Your task to perform on an android device: toggle pop-ups in chrome Image 0: 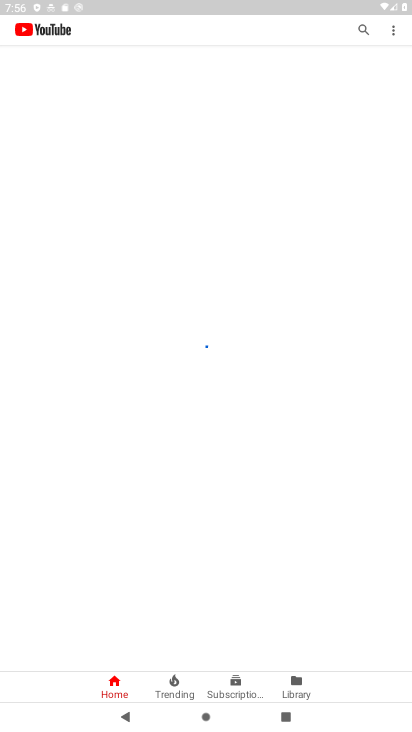
Step 0: drag from (262, 654) to (218, 104)
Your task to perform on an android device: toggle pop-ups in chrome Image 1: 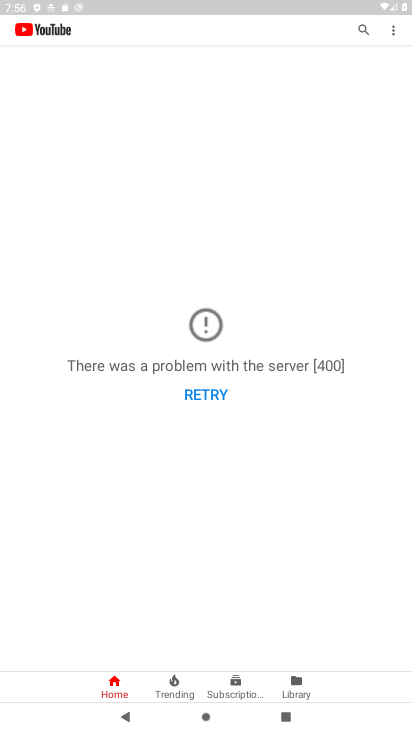
Step 1: press back button
Your task to perform on an android device: toggle pop-ups in chrome Image 2: 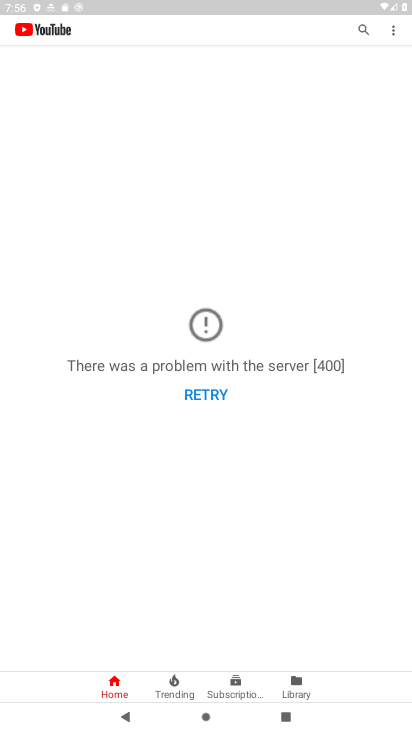
Step 2: press back button
Your task to perform on an android device: toggle pop-ups in chrome Image 3: 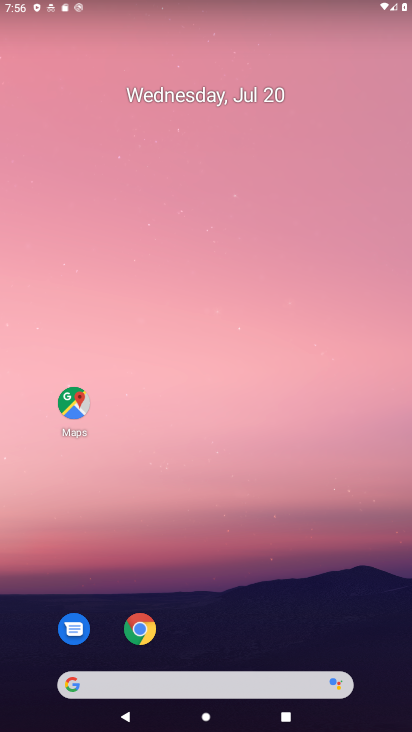
Step 3: press home button
Your task to perform on an android device: toggle pop-ups in chrome Image 4: 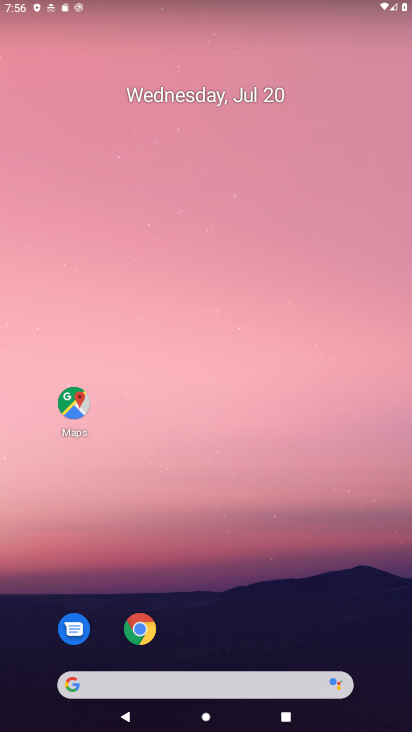
Step 4: drag from (208, 515) to (170, 151)
Your task to perform on an android device: toggle pop-ups in chrome Image 5: 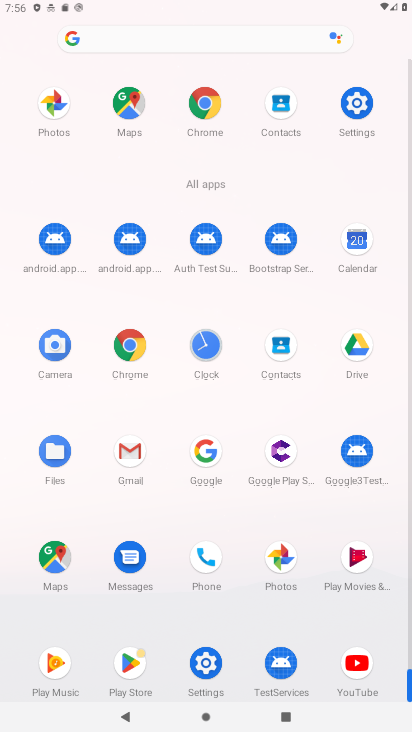
Step 5: click (200, 114)
Your task to perform on an android device: toggle pop-ups in chrome Image 6: 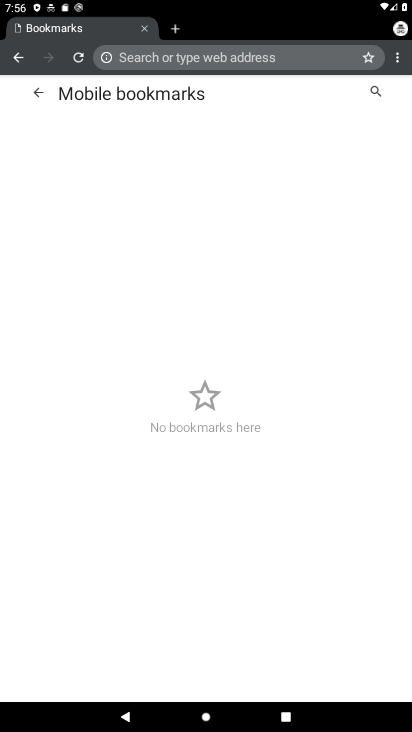
Step 6: drag from (393, 55) to (295, 233)
Your task to perform on an android device: toggle pop-ups in chrome Image 7: 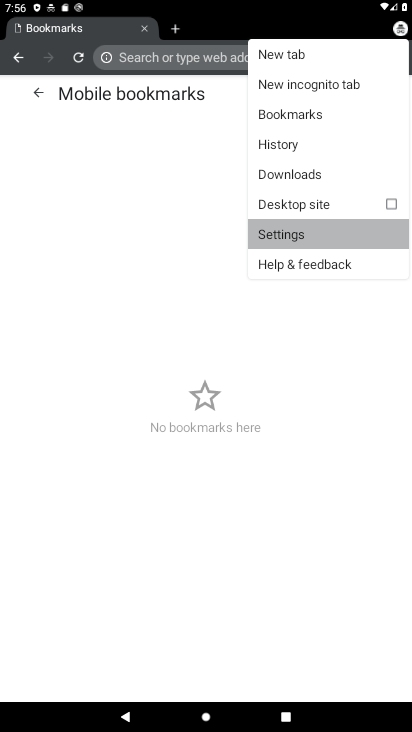
Step 7: click (294, 232)
Your task to perform on an android device: toggle pop-ups in chrome Image 8: 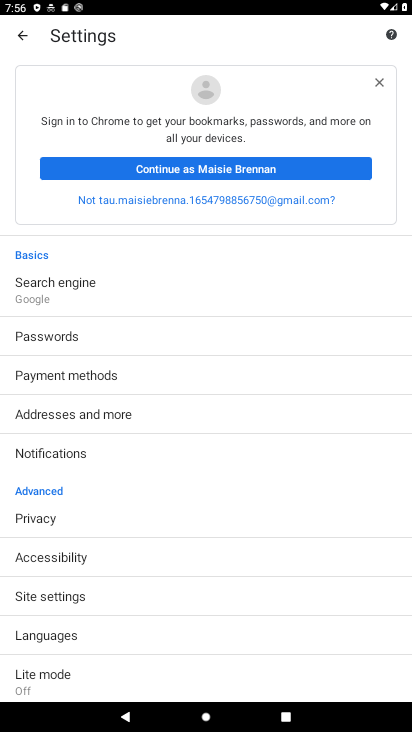
Step 8: drag from (80, 483) to (10, 37)
Your task to perform on an android device: toggle pop-ups in chrome Image 9: 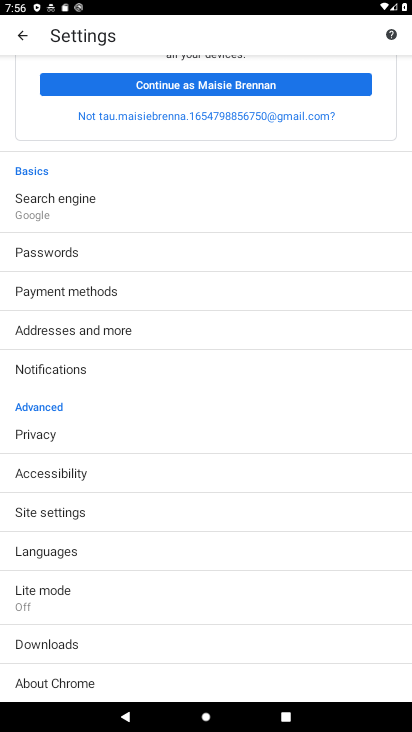
Step 9: click (43, 501)
Your task to perform on an android device: toggle pop-ups in chrome Image 10: 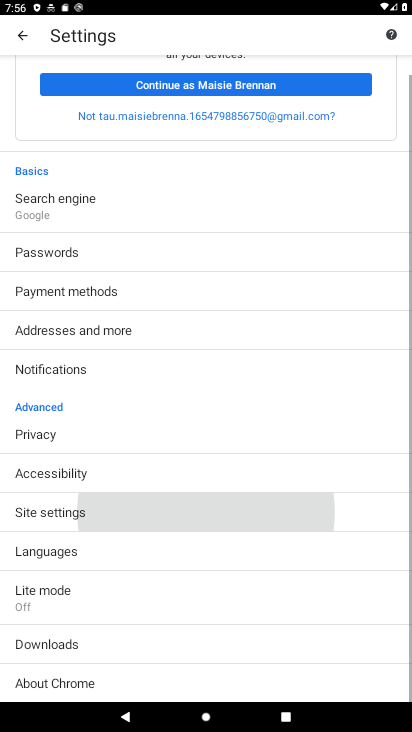
Step 10: click (43, 500)
Your task to perform on an android device: toggle pop-ups in chrome Image 11: 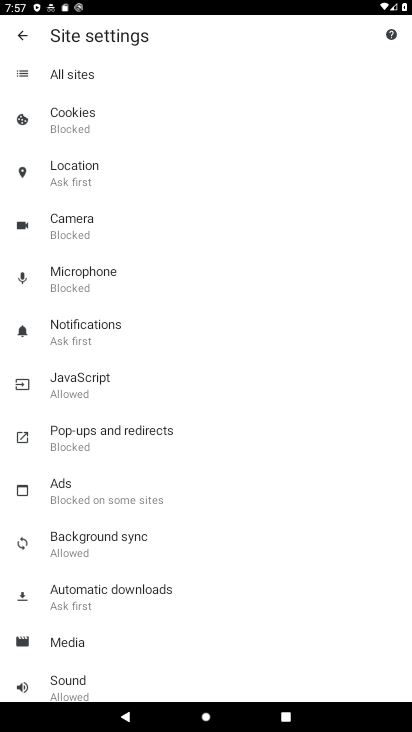
Step 11: click (71, 426)
Your task to perform on an android device: toggle pop-ups in chrome Image 12: 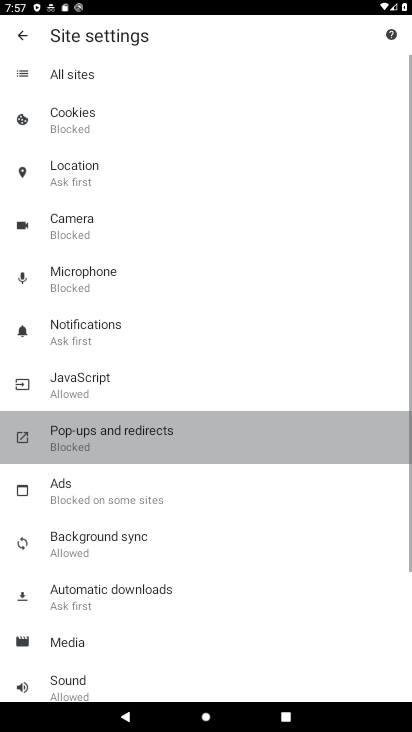
Step 12: click (73, 431)
Your task to perform on an android device: toggle pop-ups in chrome Image 13: 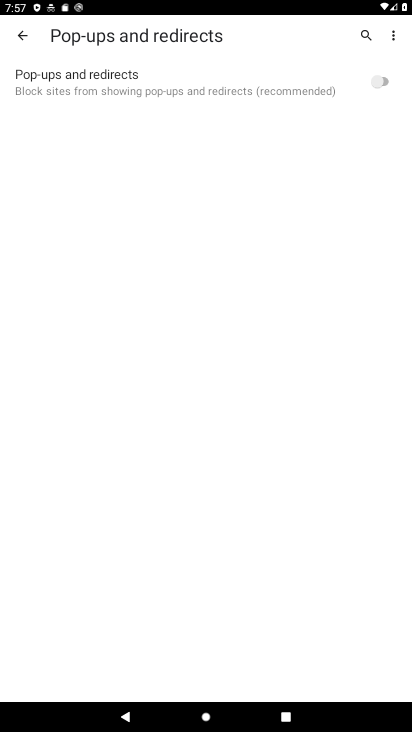
Step 13: click (377, 79)
Your task to perform on an android device: toggle pop-ups in chrome Image 14: 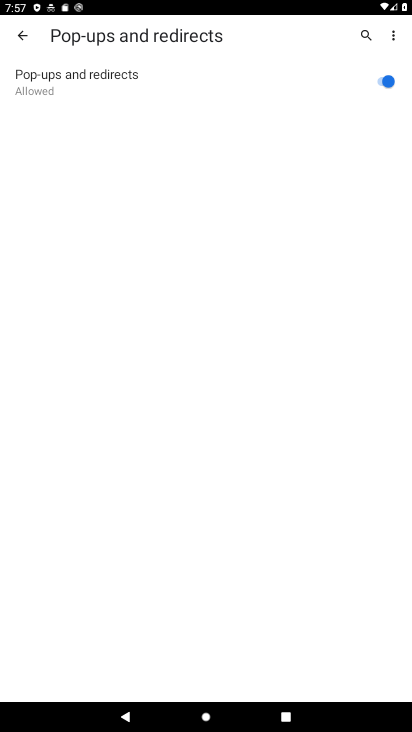
Step 14: task complete